Your task to perform on an android device: Is it going to rain tomorrow? Image 0: 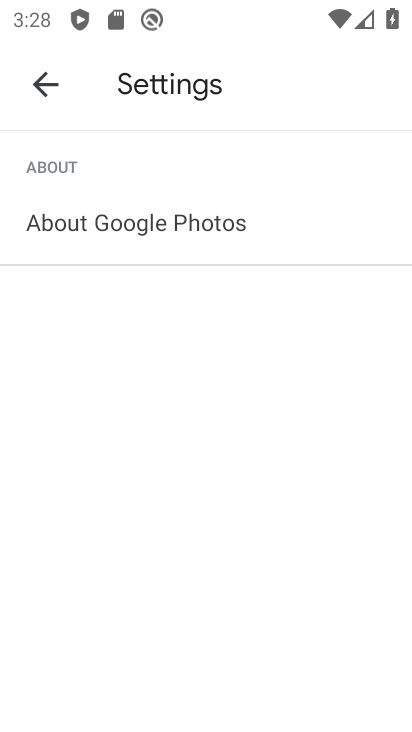
Step 0: press back button
Your task to perform on an android device: Is it going to rain tomorrow? Image 1: 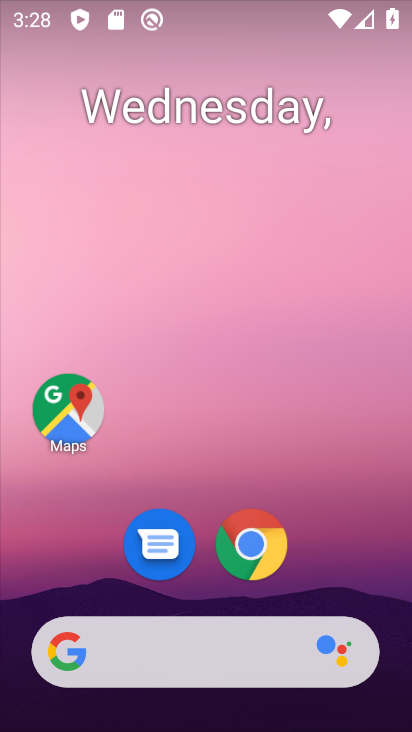
Step 1: drag from (3, 302) to (410, 287)
Your task to perform on an android device: Is it going to rain tomorrow? Image 2: 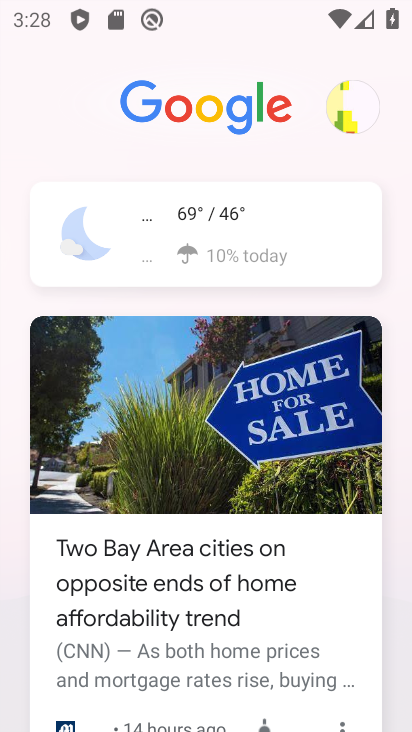
Step 2: click (209, 248)
Your task to perform on an android device: Is it going to rain tomorrow? Image 3: 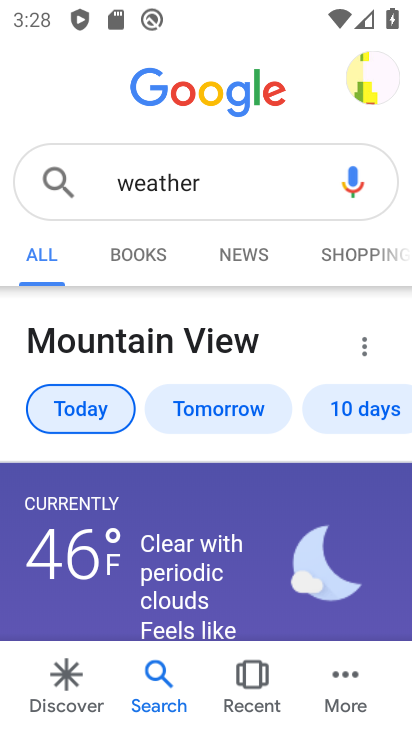
Step 3: drag from (221, 551) to (345, 207)
Your task to perform on an android device: Is it going to rain tomorrow? Image 4: 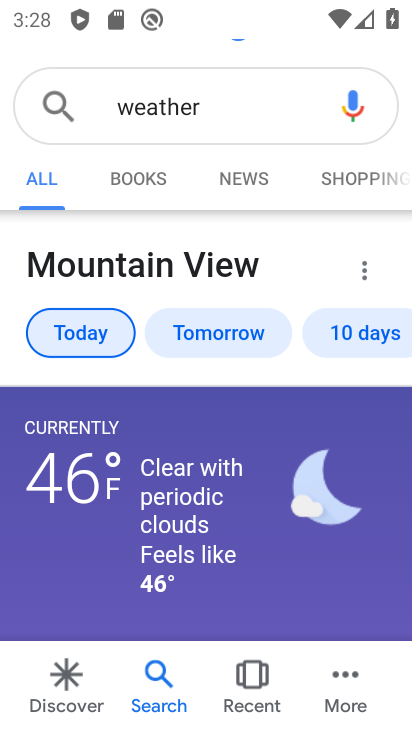
Step 4: drag from (261, 457) to (339, 207)
Your task to perform on an android device: Is it going to rain tomorrow? Image 5: 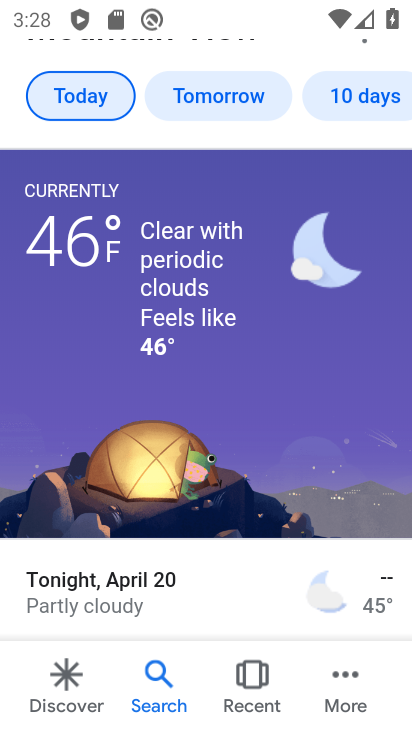
Step 5: drag from (117, 602) to (215, 321)
Your task to perform on an android device: Is it going to rain tomorrow? Image 6: 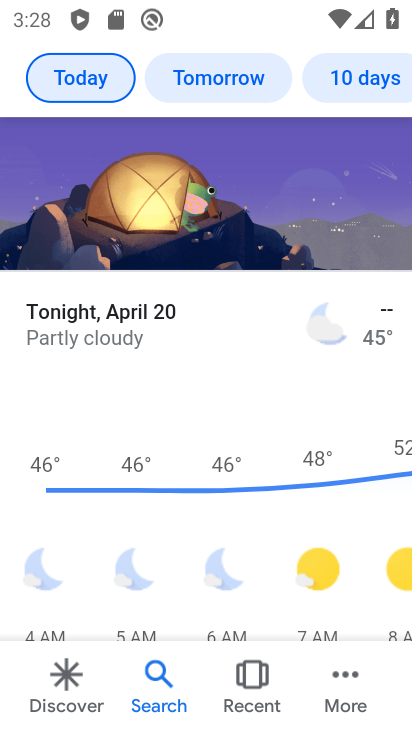
Step 6: drag from (157, 535) to (205, 341)
Your task to perform on an android device: Is it going to rain tomorrow? Image 7: 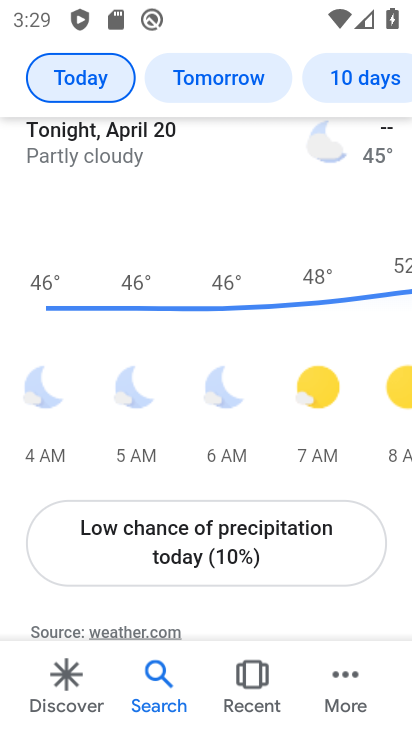
Step 7: click (238, 88)
Your task to perform on an android device: Is it going to rain tomorrow? Image 8: 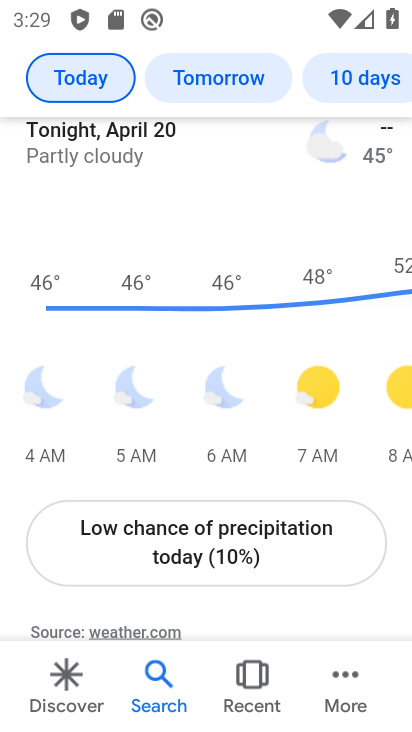
Step 8: click (236, 91)
Your task to perform on an android device: Is it going to rain tomorrow? Image 9: 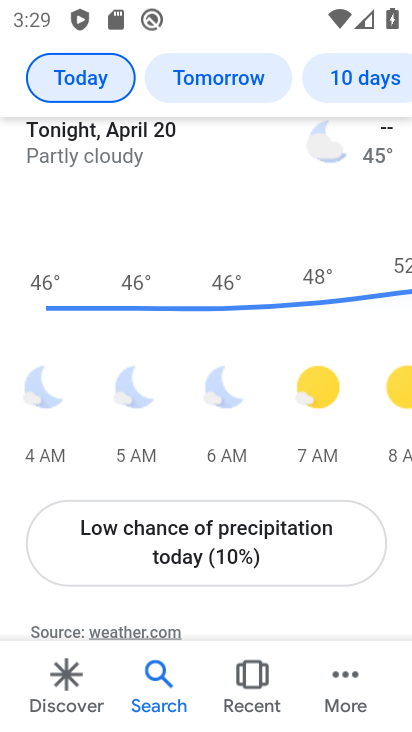
Step 9: click (236, 91)
Your task to perform on an android device: Is it going to rain tomorrow? Image 10: 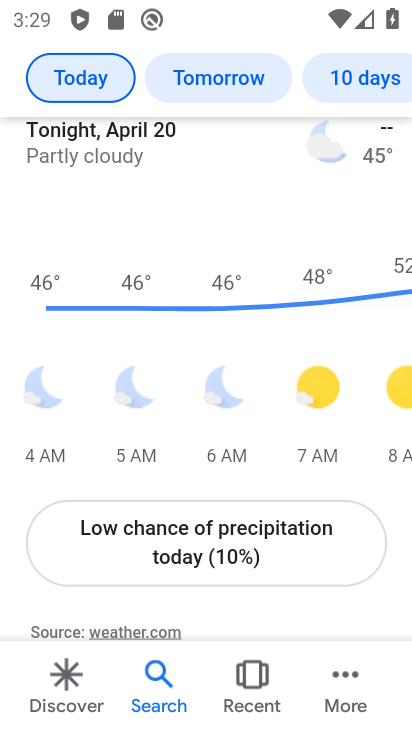
Step 10: click (234, 91)
Your task to perform on an android device: Is it going to rain tomorrow? Image 11: 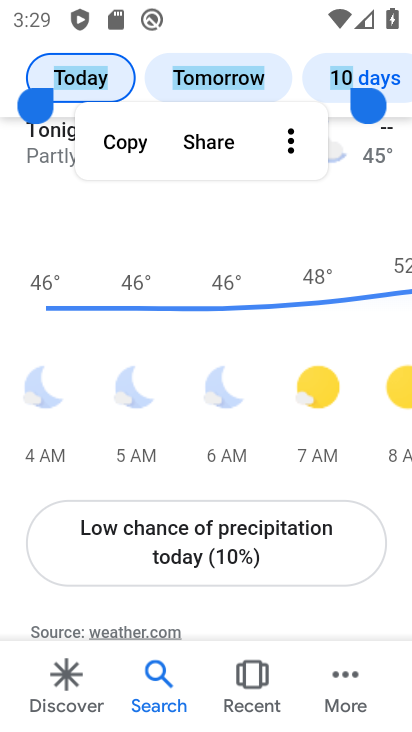
Step 11: click (252, 84)
Your task to perform on an android device: Is it going to rain tomorrow? Image 12: 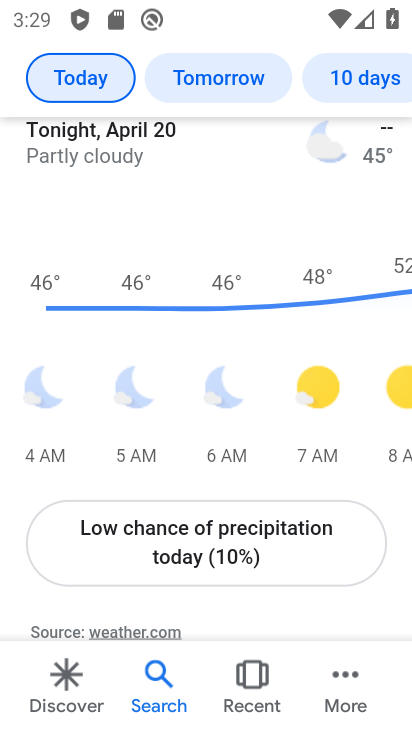
Step 12: click (248, 82)
Your task to perform on an android device: Is it going to rain tomorrow? Image 13: 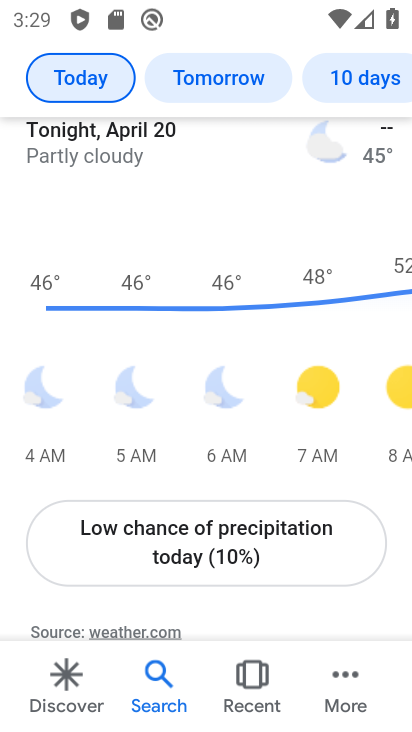
Step 13: click (247, 82)
Your task to perform on an android device: Is it going to rain tomorrow? Image 14: 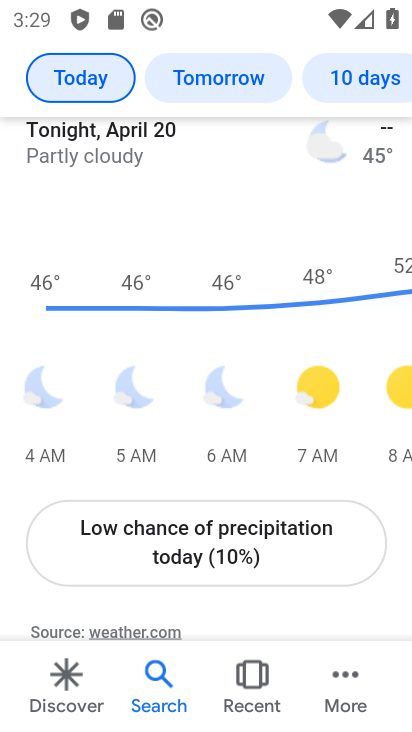
Step 14: click (229, 87)
Your task to perform on an android device: Is it going to rain tomorrow? Image 15: 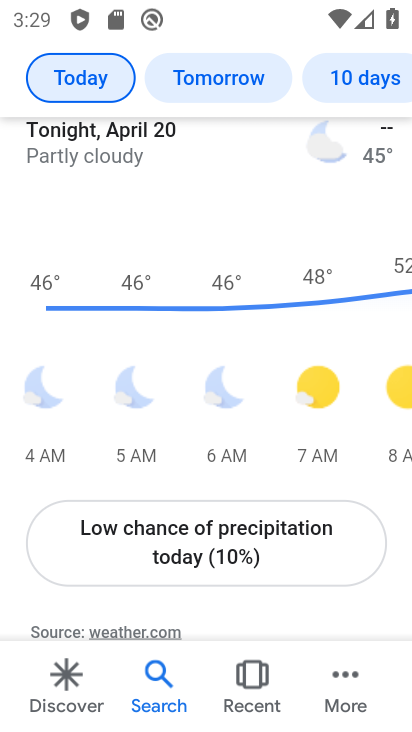
Step 15: click (226, 86)
Your task to perform on an android device: Is it going to rain tomorrow? Image 16: 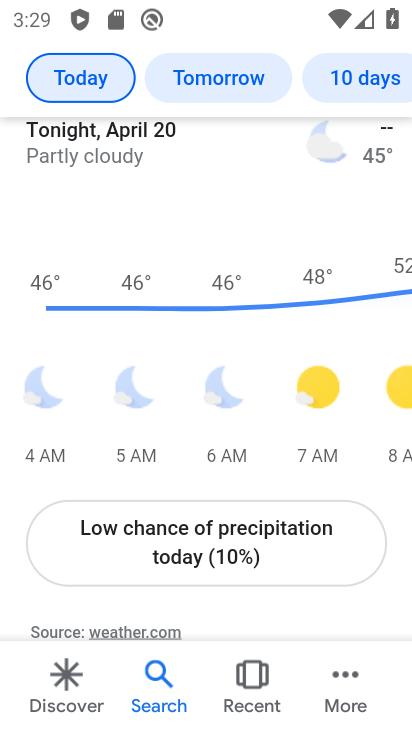
Step 16: click (226, 85)
Your task to perform on an android device: Is it going to rain tomorrow? Image 17: 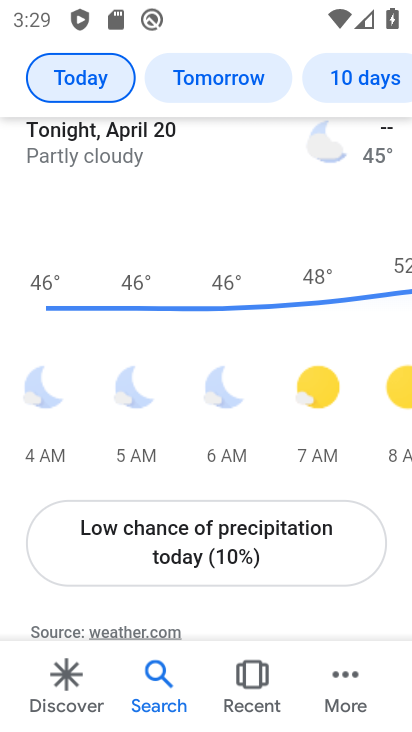
Step 17: click (224, 84)
Your task to perform on an android device: Is it going to rain tomorrow? Image 18: 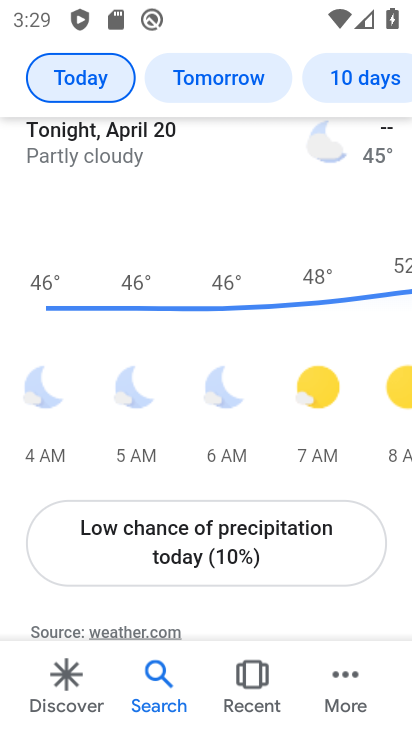
Step 18: click (245, 85)
Your task to perform on an android device: Is it going to rain tomorrow? Image 19: 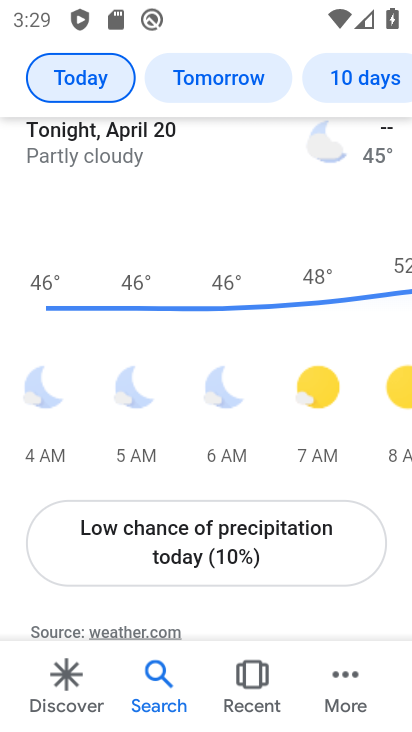
Step 19: click (243, 84)
Your task to perform on an android device: Is it going to rain tomorrow? Image 20: 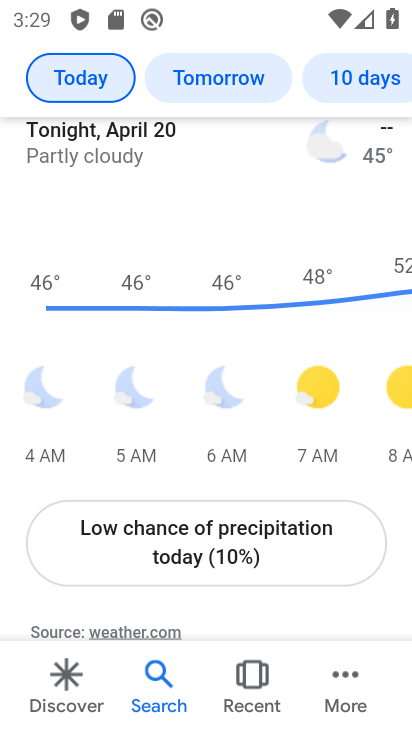
Step 20: click (243, 84)
Your task to perform on an android device: Is it going to rain tomorrow? Image 21: 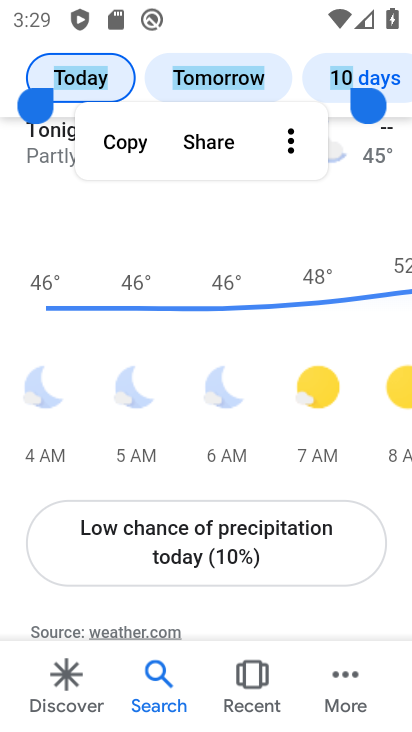
Step 21: drag from (231, 227) to (207, 521)
Your task to perform on an android device: Is it going to rain tomorrow? Image 22: 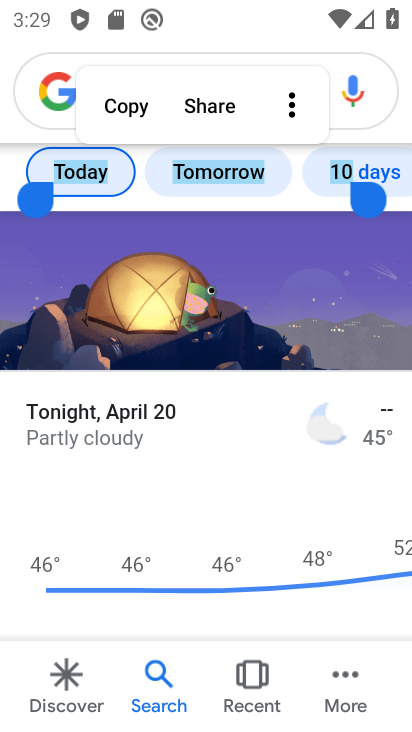
Step 22: click (270, 177)
Your task to perform on an android device: Is it going to rain tomorrow? Image 23: 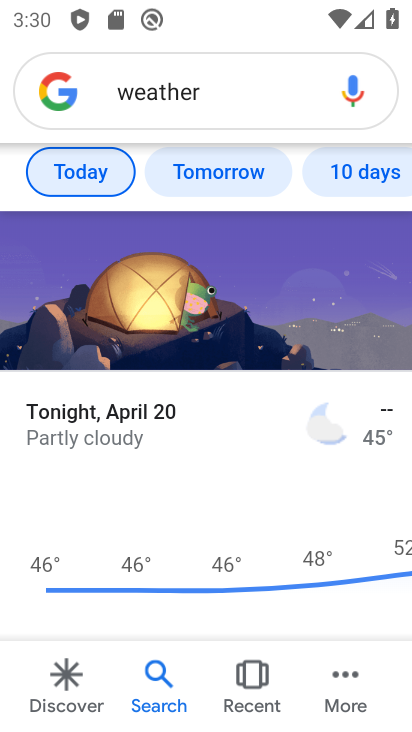
Step 23: click (264, 174)
Your task to perform on an android device: Is it going to rain tomorrow? Image 24: 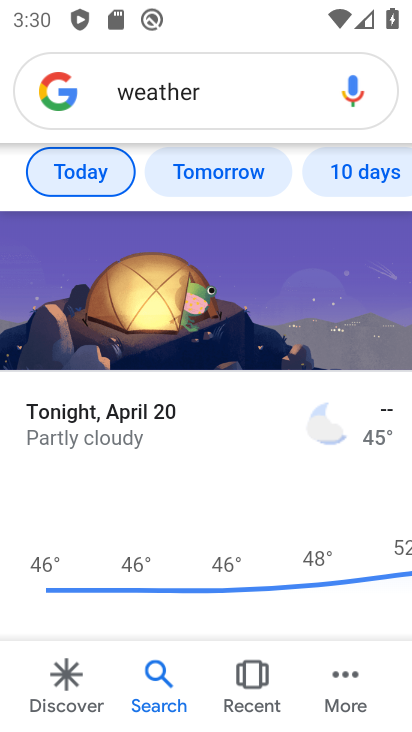
Step 24: click (262, 172)
Your task to perform on an android device: Is it going to rain tomorrow? Image 25: 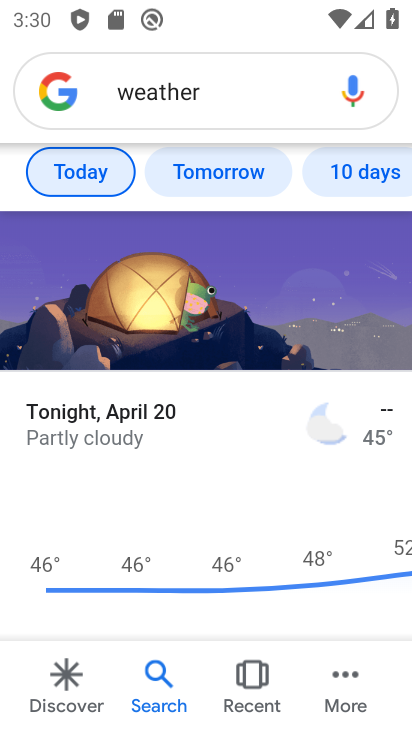
Step 25: click (258, 163)
Your task to perform on an android device: Is it going to rain tomorrow? Image 26: 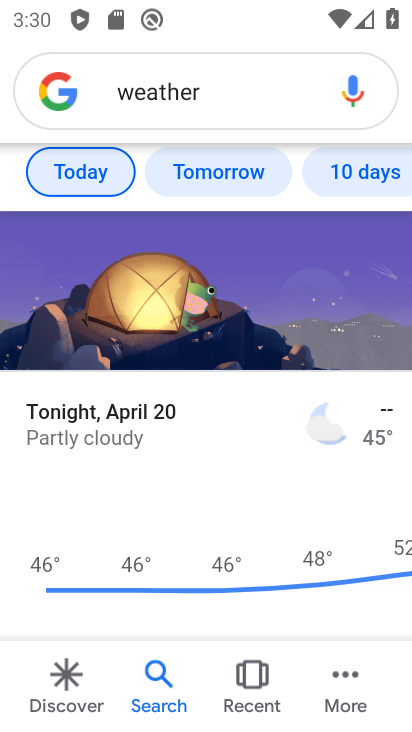
Step 26: click (289, 301)
Your task to perform on an android device: Is it going to rain tomorrow? Image 27: 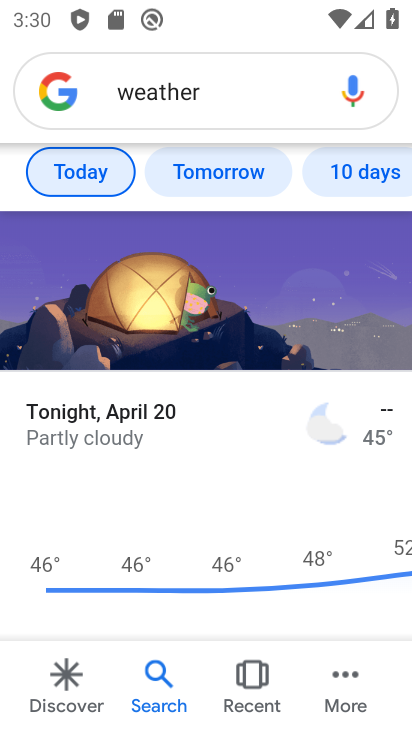
Step 27: click (278, 305)
Your task to perform on an android device: Is it going to rain tomorrow? Image 28: 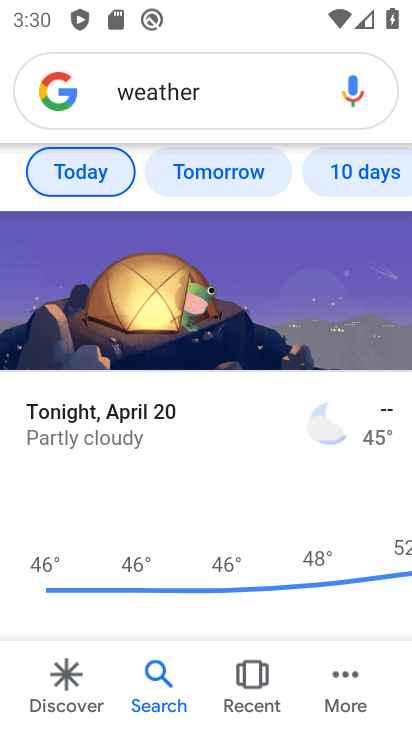
Step 28: click (260, 349)
Your task to perform on an android device: Is it going to rain tomorrow? Image 29: 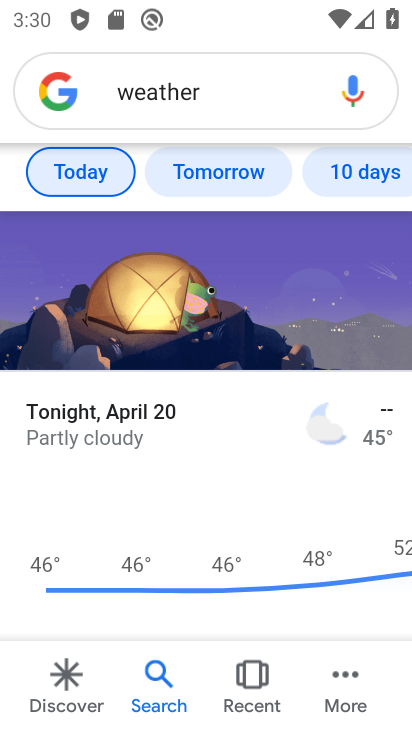
Step 29: click (283, 321)
Your task to perform on an android device: Is it going to rain tomorrow? Image 30: 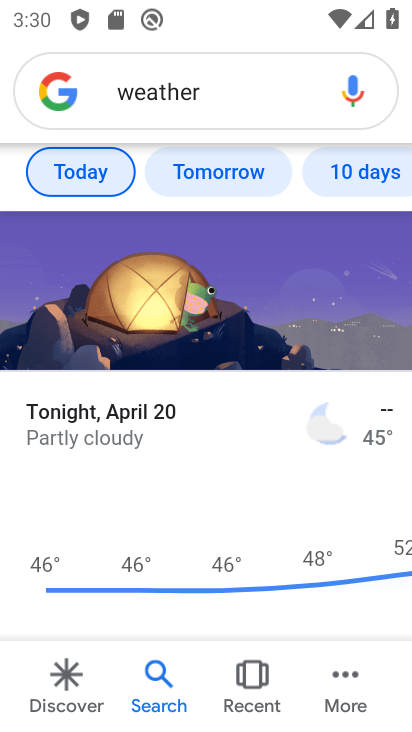
Step 30: click (253, 328)
Your task to perform on an android device: Is it going to rain tomorrow? Image 31: 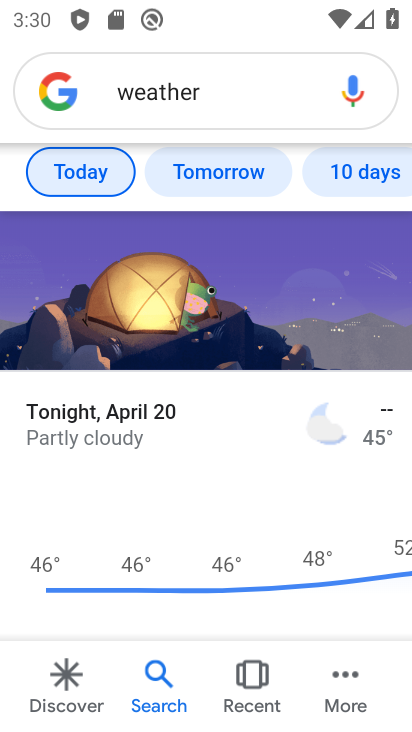
Step 31: click (252, 327)
Your task to perform on an android device: Is it going to rain tomorrow? Image 32: 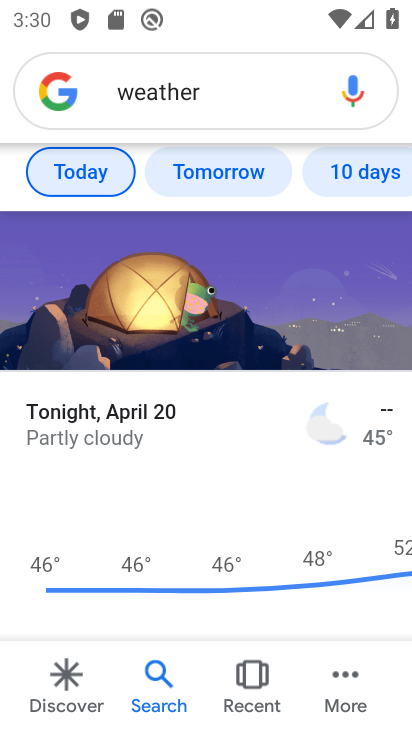
Step 32: click (232, 326)
Your task to perform on an android device: Is it going to rain tomorrow? Image 33: 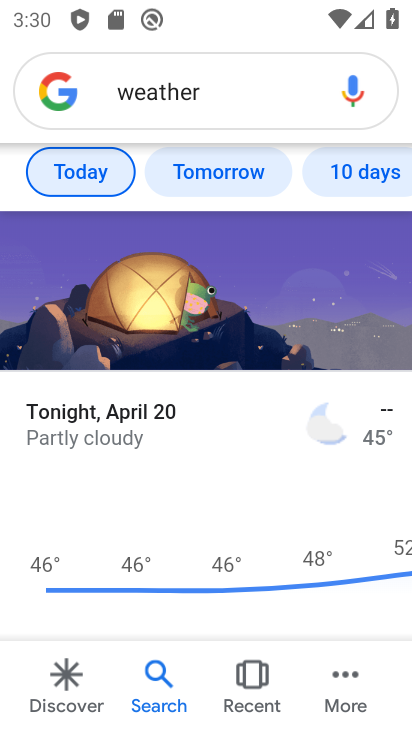
Step 33: click (220, 302)
Your task to perform on an android device: Is it going to rain tomorrow? Image 34: 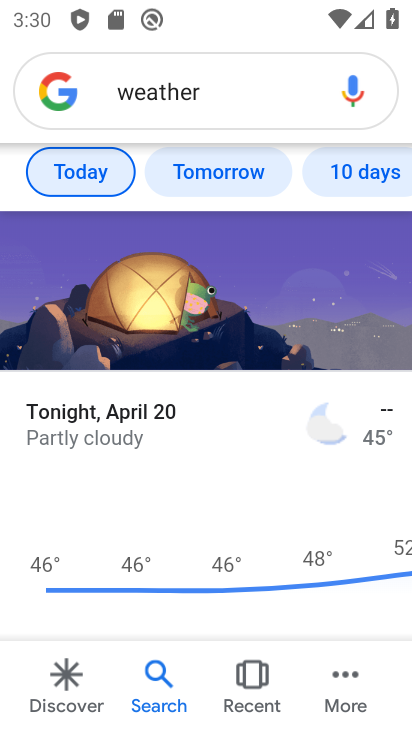
Step 34: click (220, 302)
Your task to perform on an android device: Is it going to rain tomorrow? Image 35: 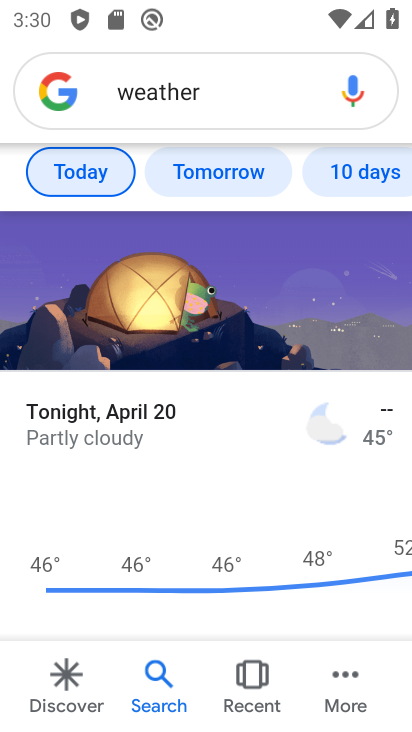
Step 35: click (204, 307)
Your task to perform on an android device: Is it going to rain tomorrow? Image 36: 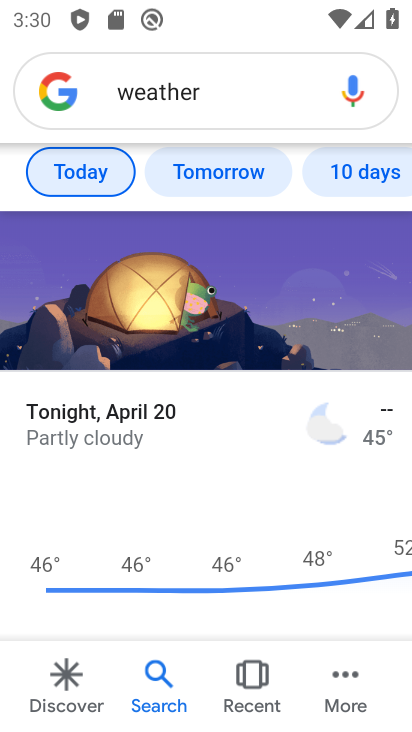
Step 36: drag from (194, 530) to (290, 312)
Your task to perform on an android device: Is it going to rain tomorrow? Image 37: 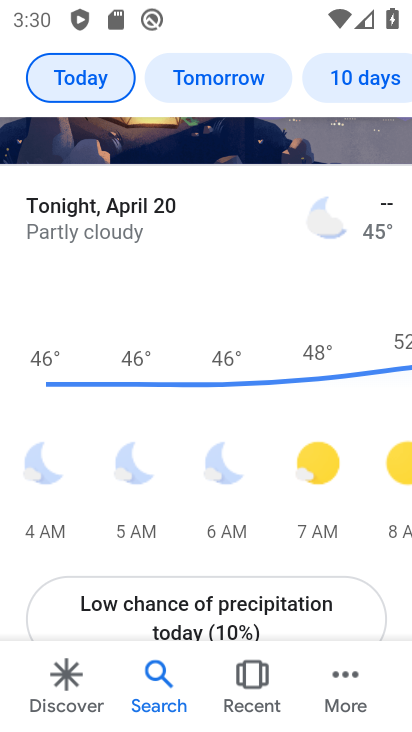
Step 37: click (249, 168)
Your task to perform on an android device: Is it going to rain tomorrow? Image 38: 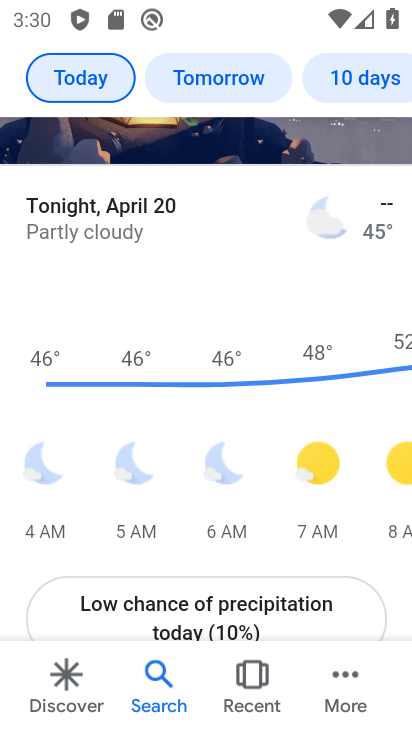
Step 38: click (247, 163)
Your task to perform on an android device: Is it going to rain tomorrow? Image 39: 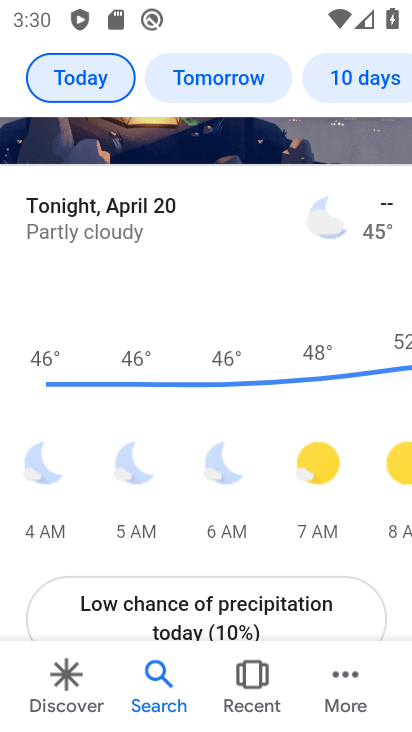
Step 39: task complete